Your task to perform on an android device: open sync settings in chrome Image 0: 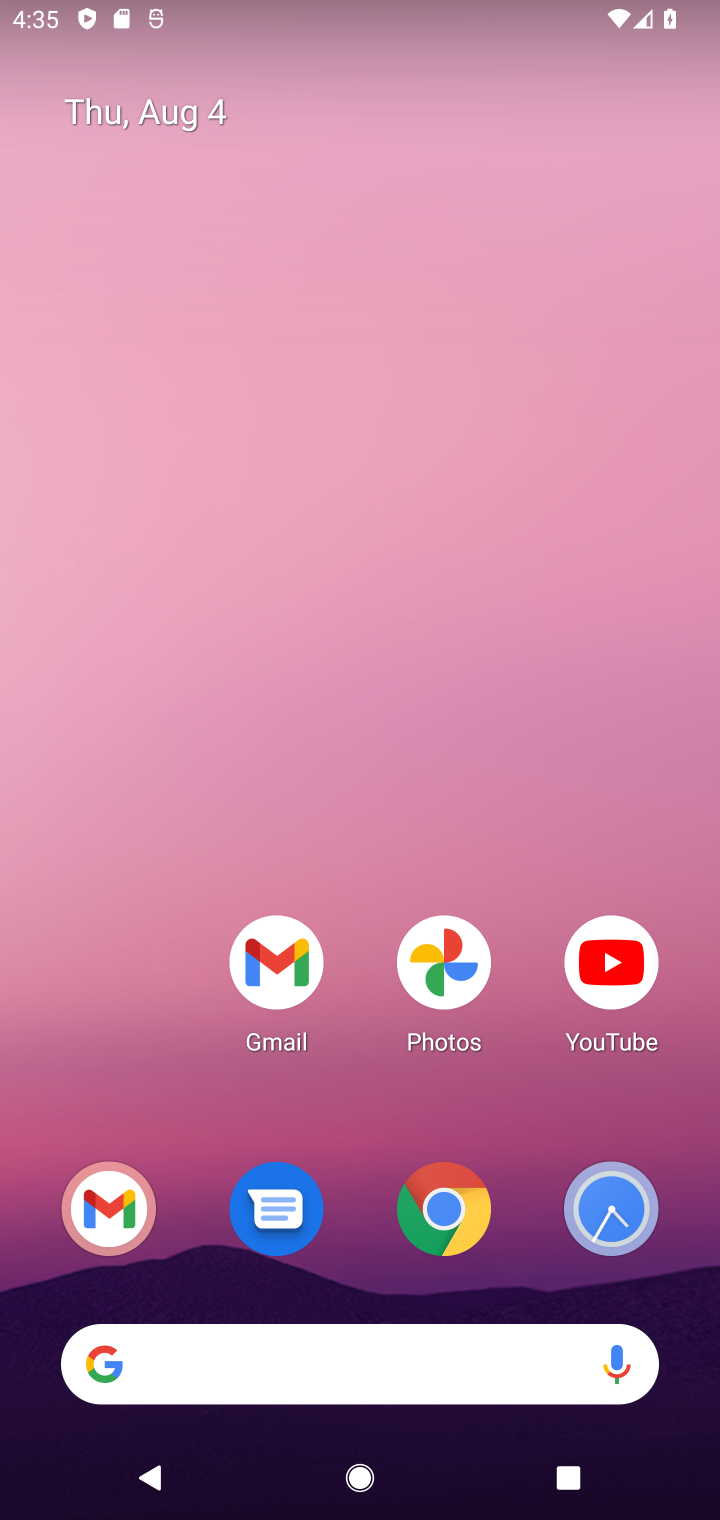
Step 0: click (460, 1228)
Your task to perform on an android device: open sync settings in chrome Image 1: 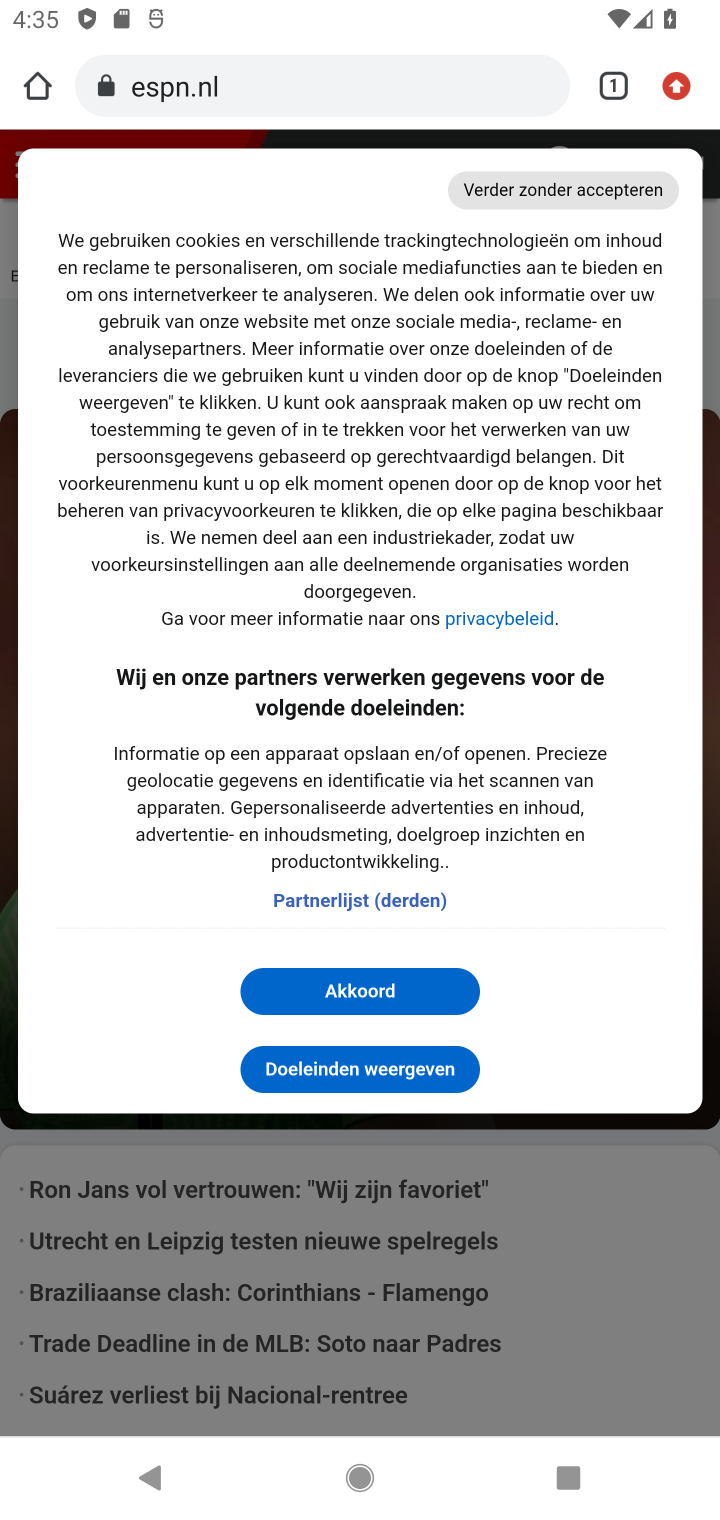
Step 1: click (671, 90)
Your task to perform on an android device: open sync settings in chrome Image 2: 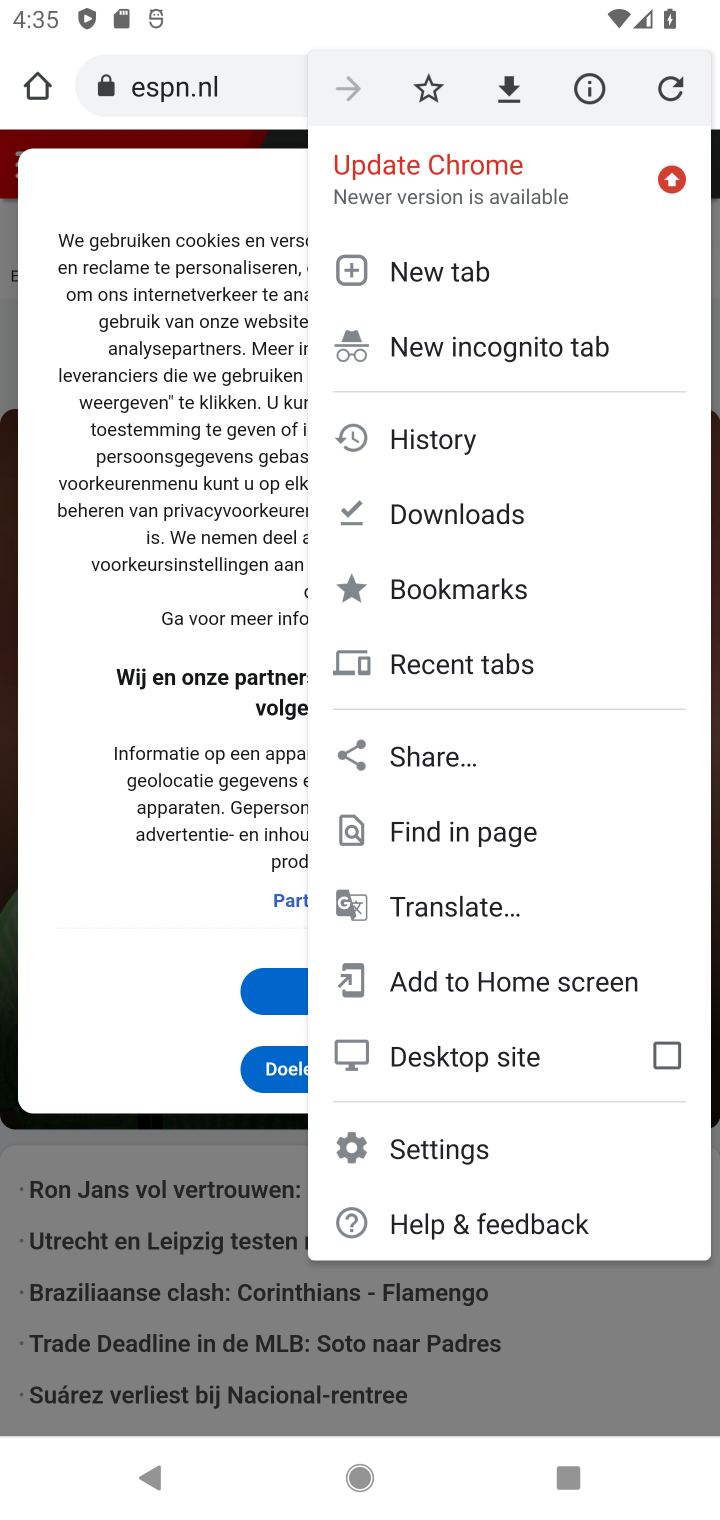
Step 2: click (414, 1150)
Your task to perform on an android device: open sync settings in chrome Image 3: 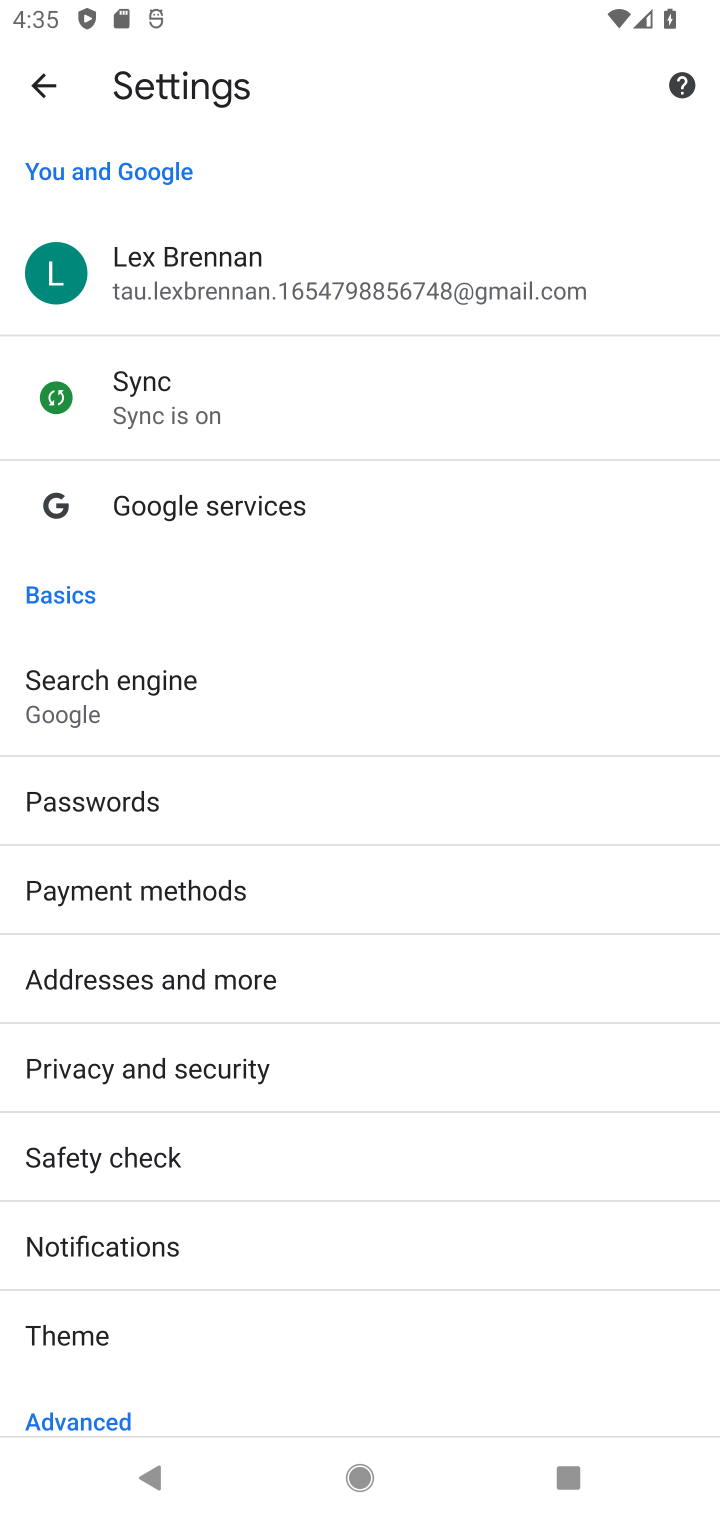
Step 3: click (174, 426)
Your task to perform on an android device: open sync settings in chrome Image 4: 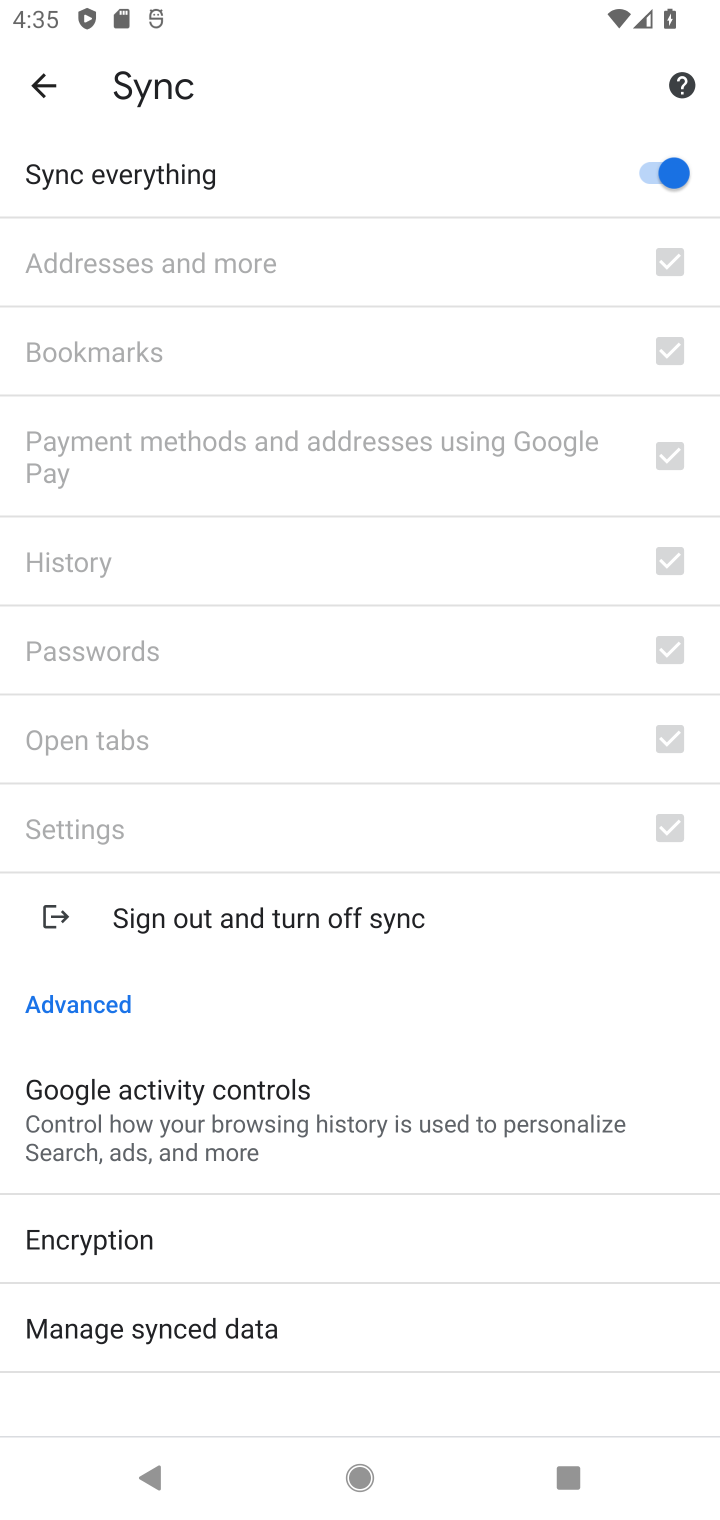
Step 4: task complete